Your task to perform on an android device: What is the news today? Image 0: 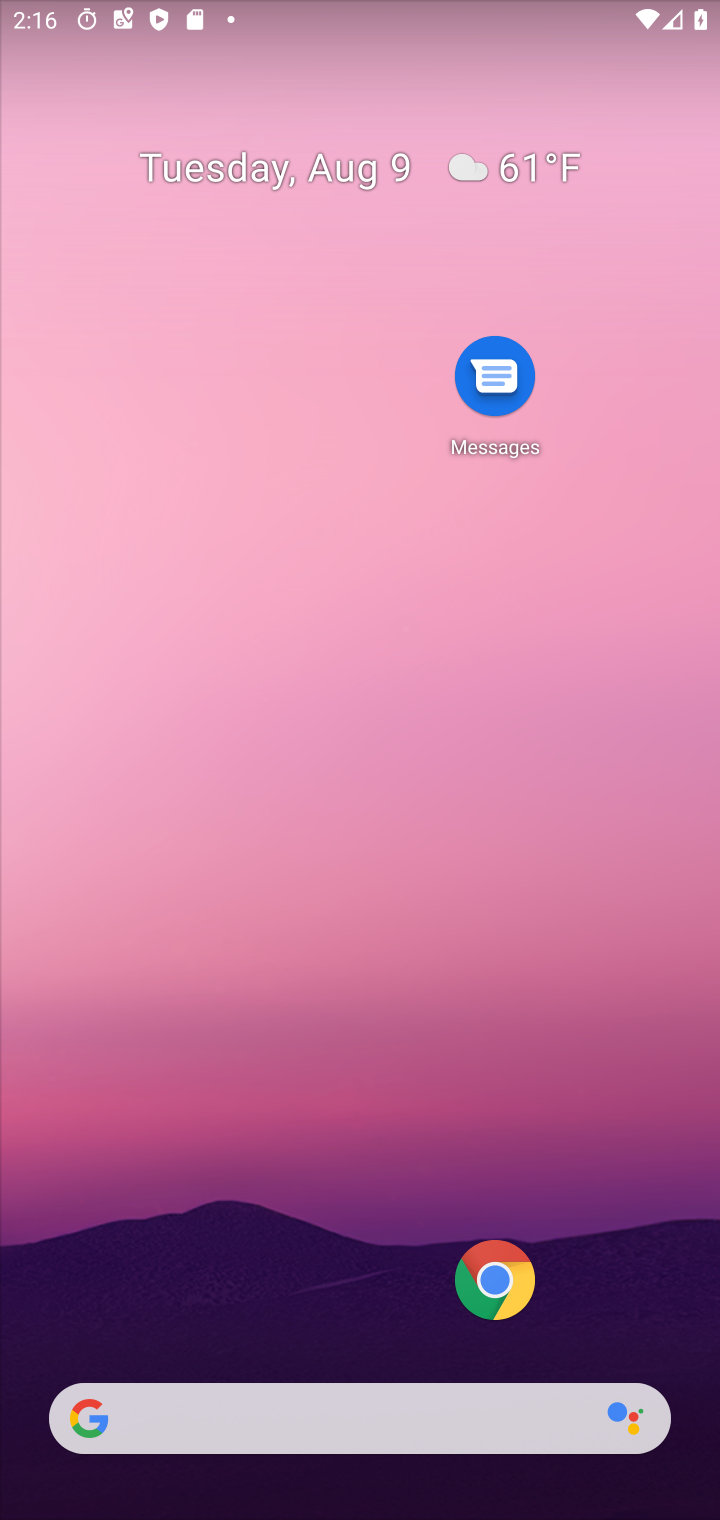
Step 0: click (273, 1412)
Your task to perform on an android device: What is the news today? Image 1: 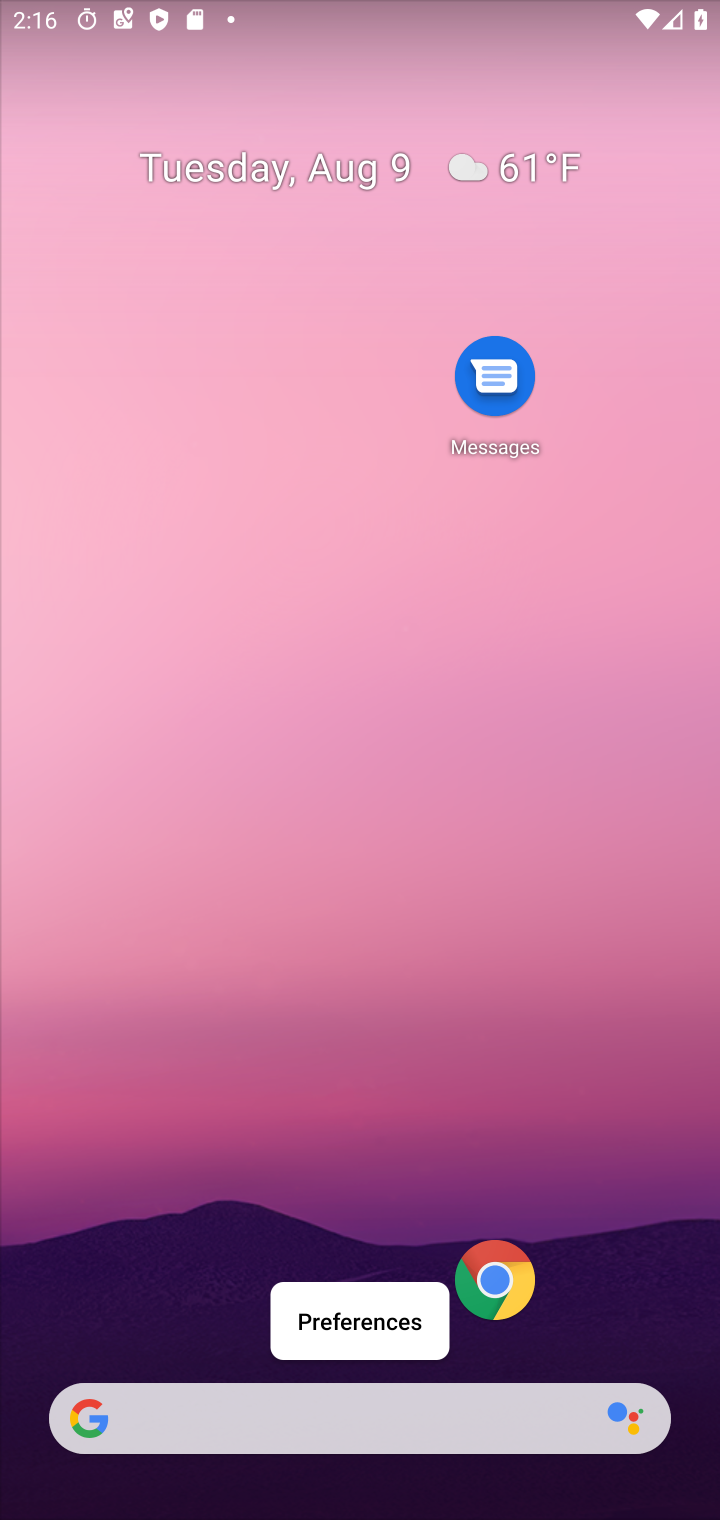
Step 1: click (254, 1415)
Your task to perform on an android device: What is the news today? Image 2: 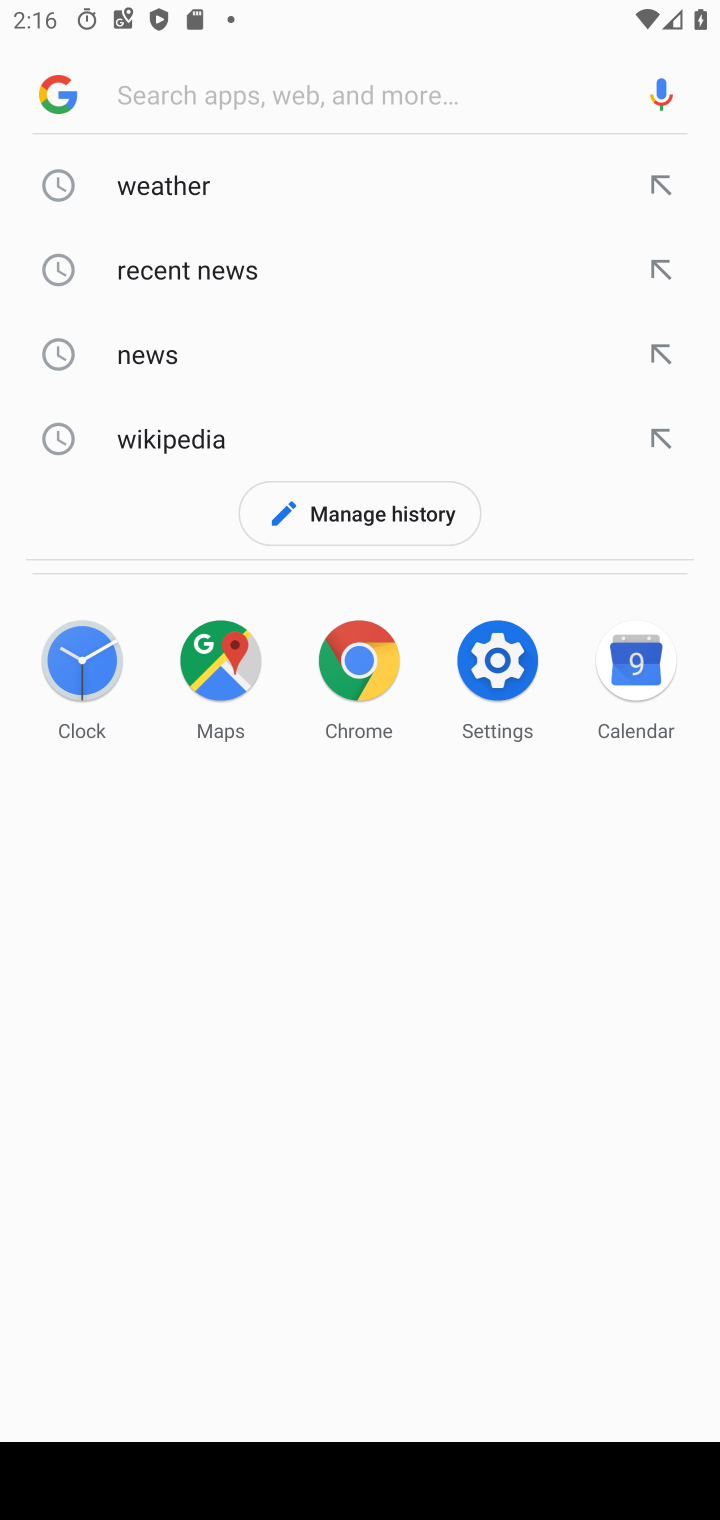
Step 2: click (177, 351)
Your task to perform on an android device: What is the news today? Image 3: 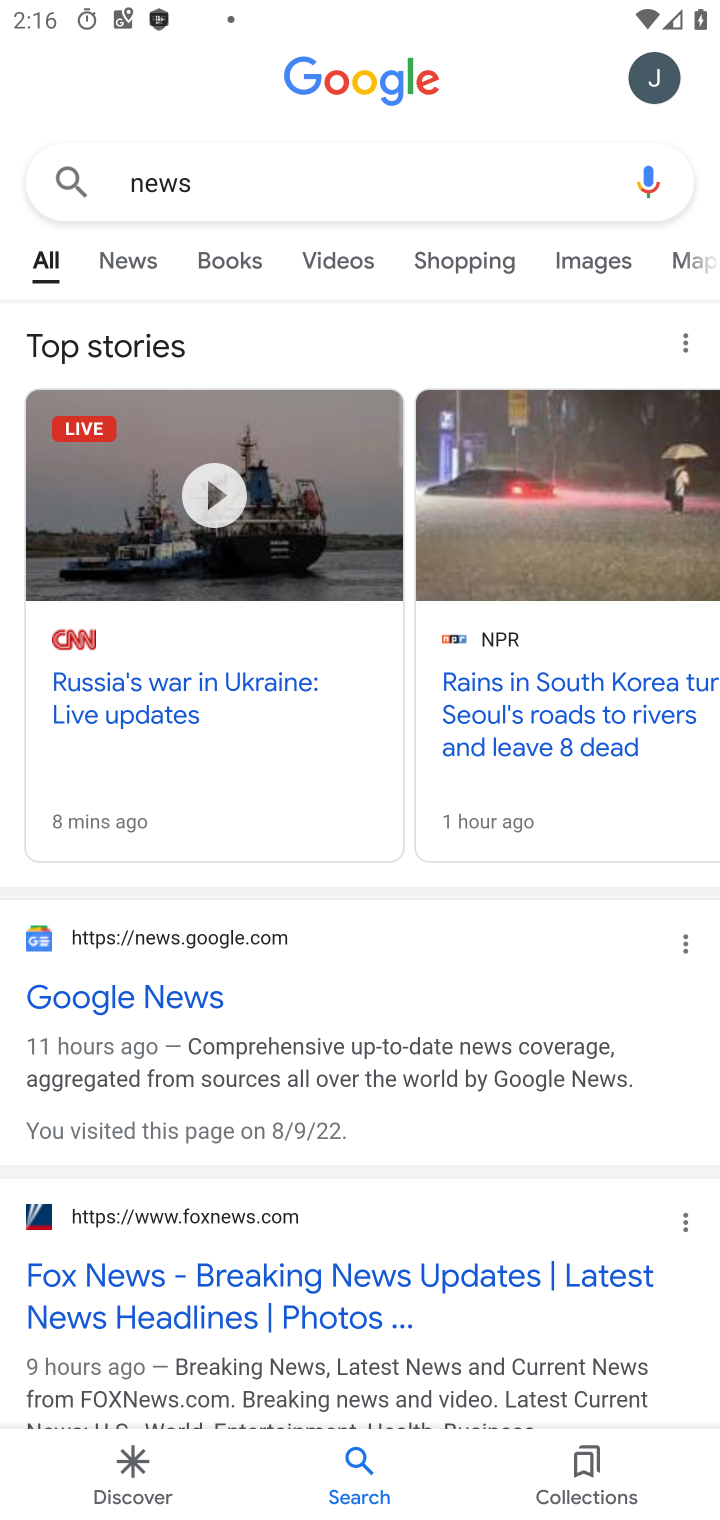
Step 3: click (139, 258)
Your task to perform on an android device: What is the news today? Image 4: 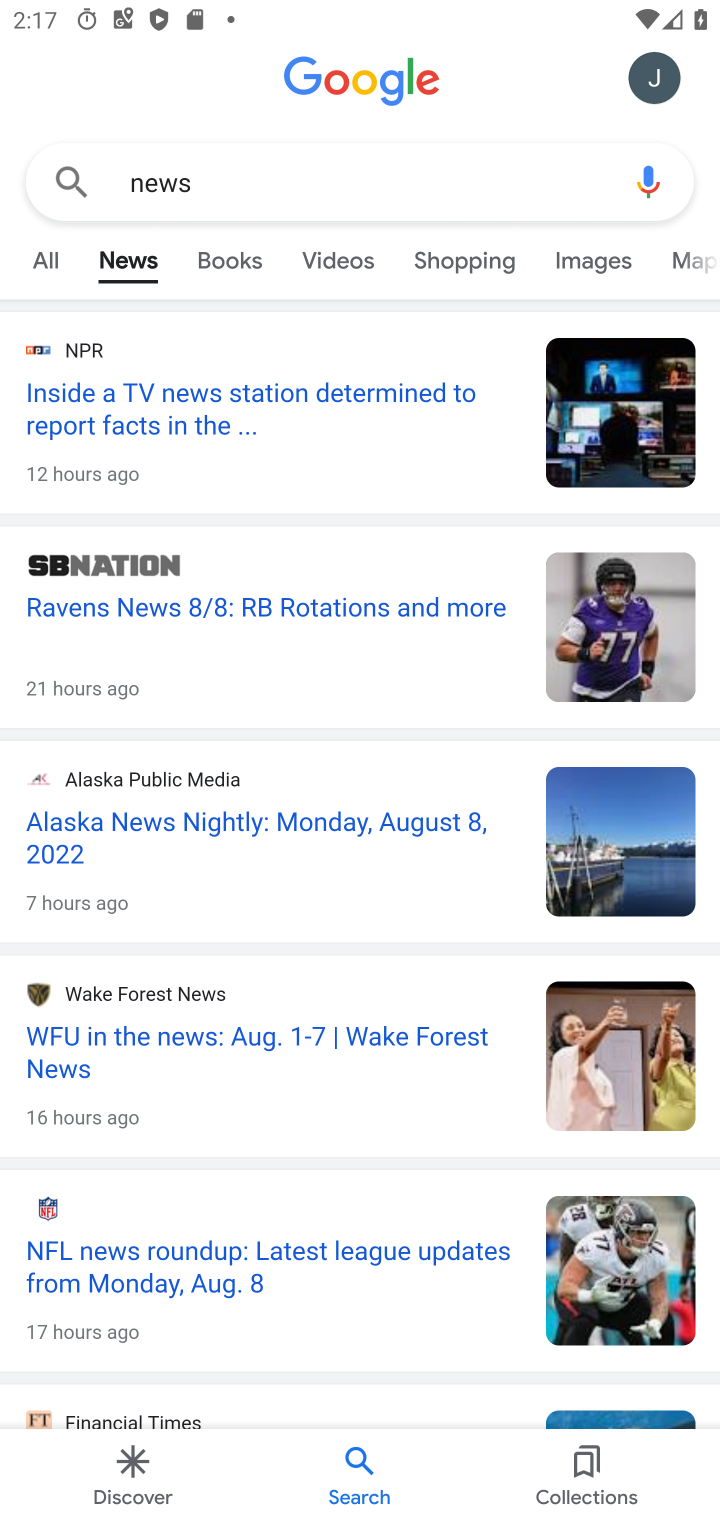
Step 4: task complete